Your task to perform on an android device: turn off sleep mode Image 0: 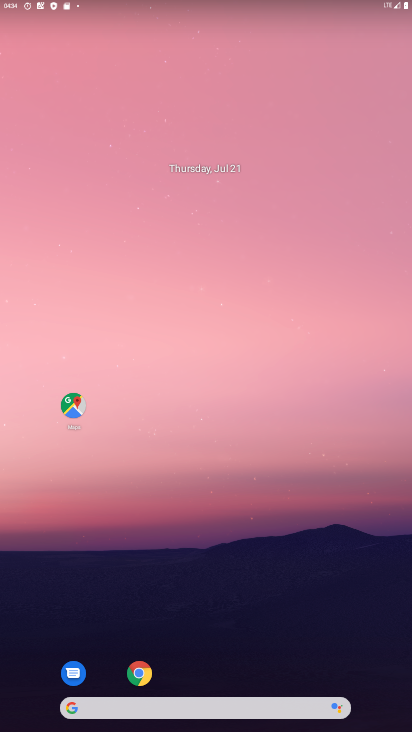
Step 0: drag from (210, 627) to (209, 138)
Your task to perform on an android device: turn off sleep mode Image 1: 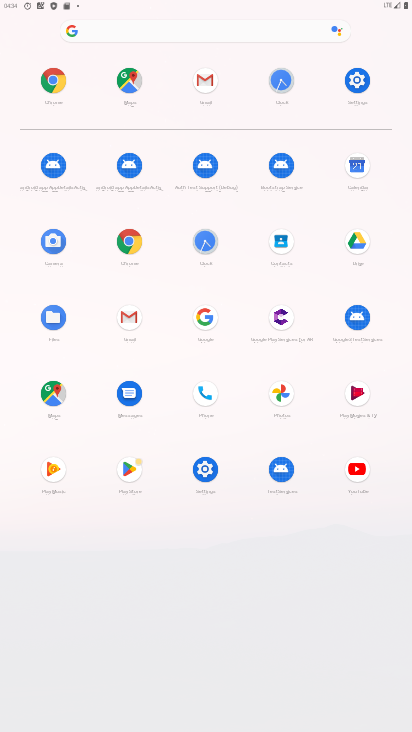
Step 1: click (347, 81)
Your task to perform on an android device: turn off sleep mode Image 2: 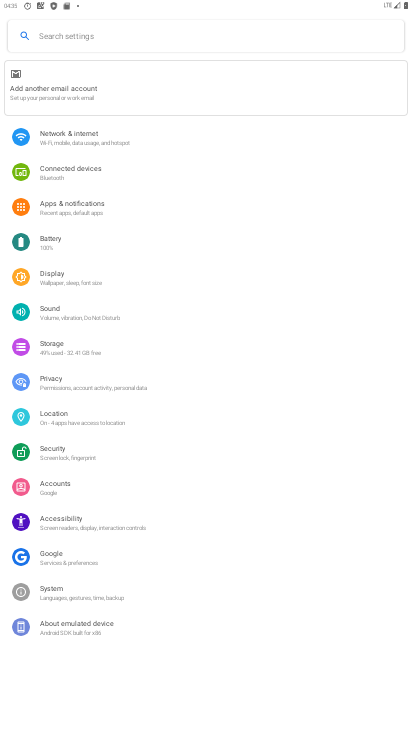
Step 2: click (72, 282)
Your task to perform on an android device: turn off sleep mode Image 3: 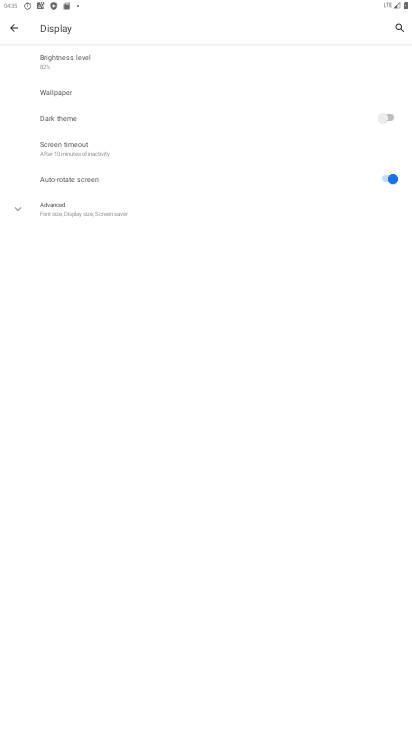
Step 3: click (64, 147)
Your task to perform on an android device: turn off sleep mode Image 4: 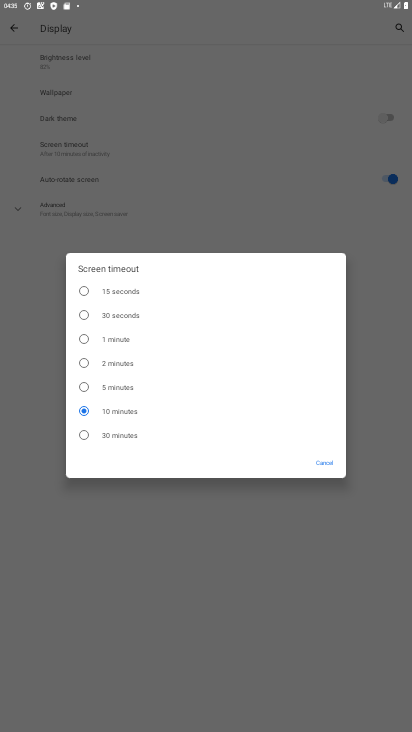
Step 4: task complete